Your task to perform on an android device: open sync settings in chrome Image 0: 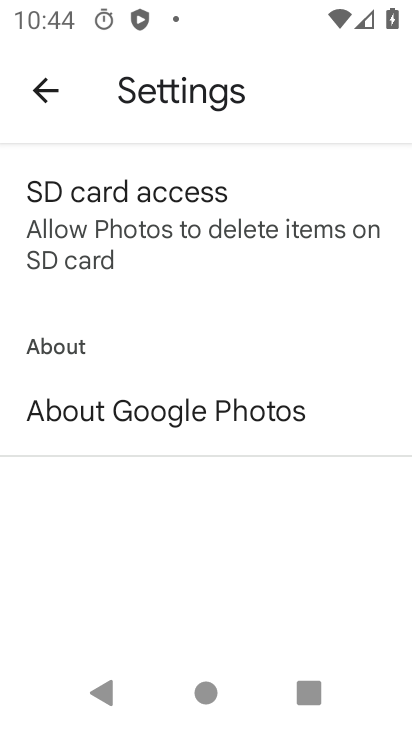
Step 0: click (56, 108)
Your task to perform on an android device: open sync settings in chrome Image 1: 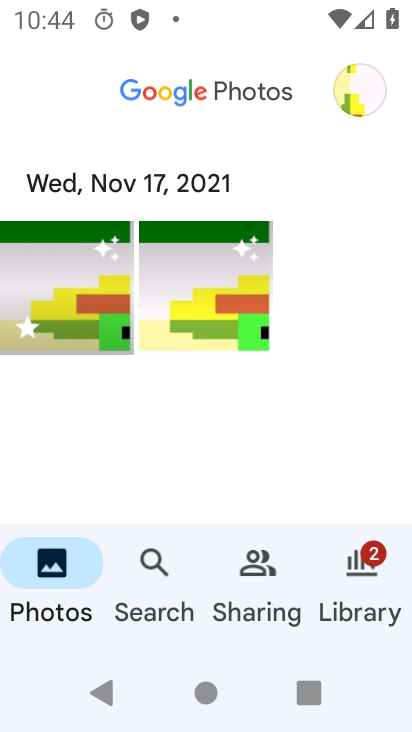
Step 1: press home button
Your task to perform on an android device: open sync settings in chrome Image 2: 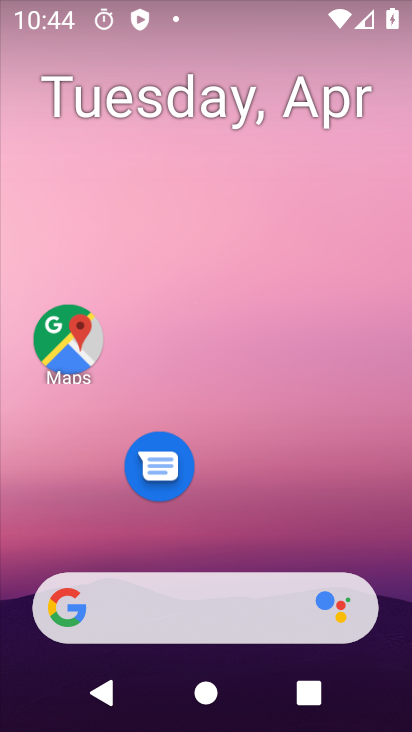
Step 2: drag from (298, 483) to (250, 200)
Your task to perform on an android device: open sync settings in chrome Image 3: 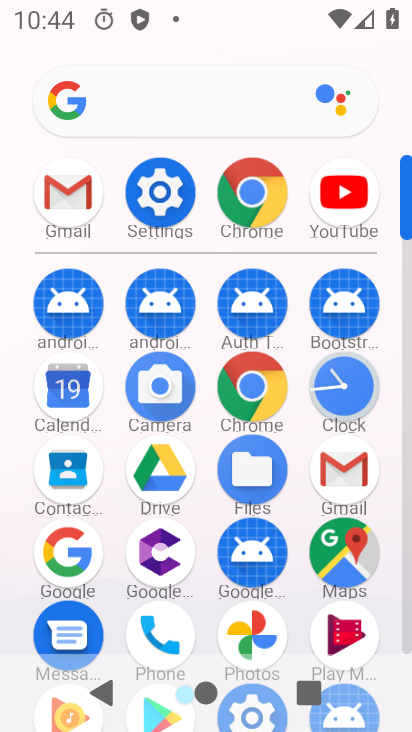
Step 3: click (266, 413)
Your task to perform on an android device: open sync settings in chrome Image 4: 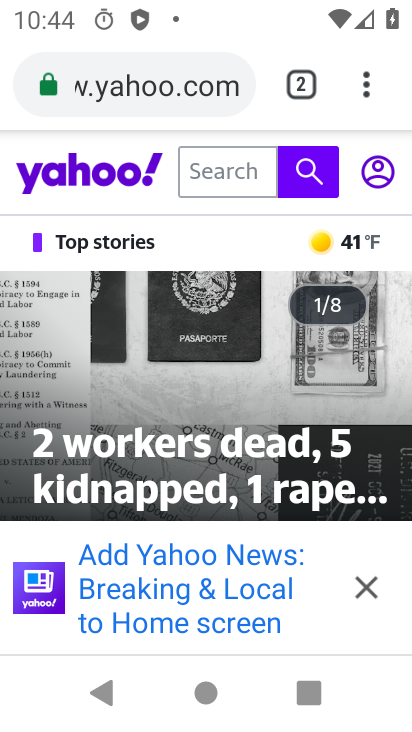
Step 4: click (379, 90)
Your task to perform on an android device: open sync settings in chrome Image 5: 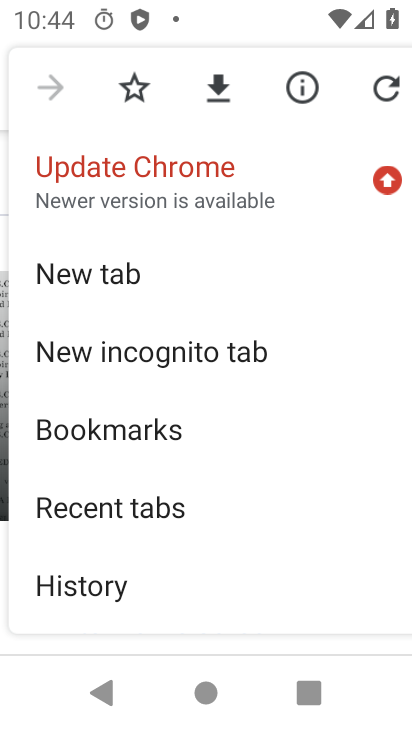
Step 5: drag from (187, 465) to (165, 212)
Your task to perform on an android device: open sync settings in chrome Image 6: 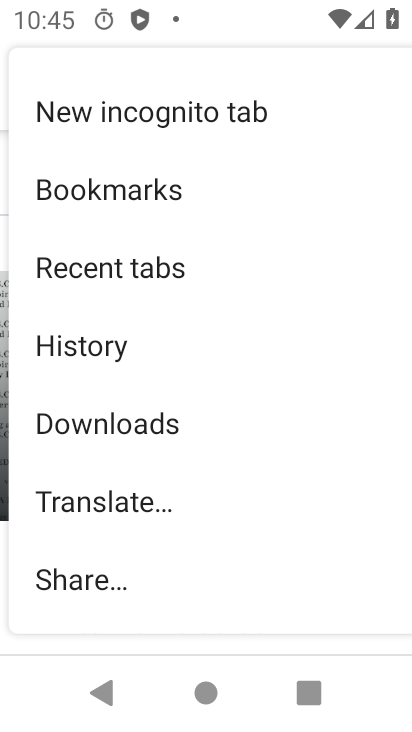
Step 6: drag from (164, 508) to (215, 285)
Your task to perform on an android device: open sync settings in chrome Image 7: 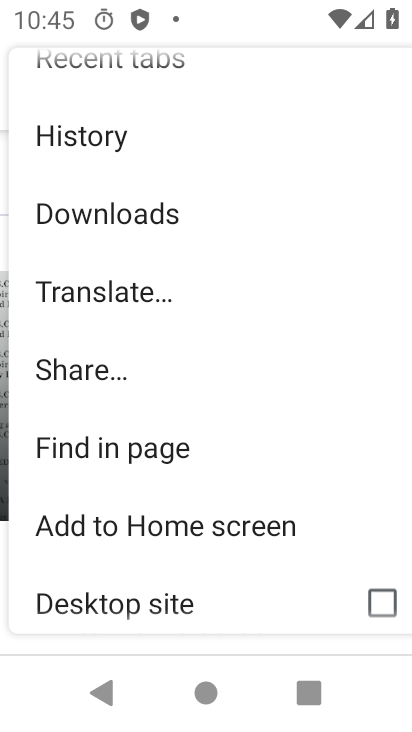
Step 7: drag from (173, 531) to (219, 296)
Your task to perform on an android device: open sync settings in chrome Image 8: 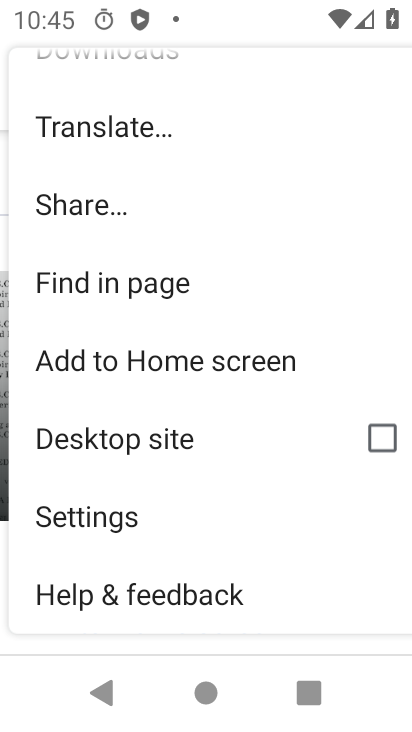
Step 8: click (169, 514)
Your task to perform on an android device: open sync settings in chrome Image 9: 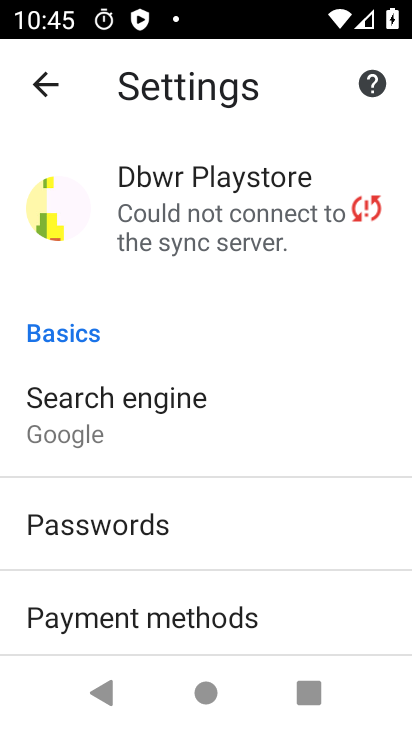
Step 9: click (184, 173)
Your task to perform on an android device: open sync settings in chrome Image 10: 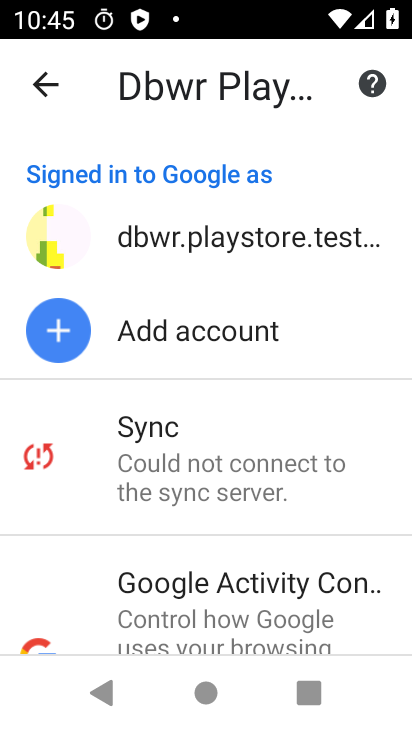
Step 10: task complete